Your task to perform on an android device: Search for the best movies of 2019  Image 0: 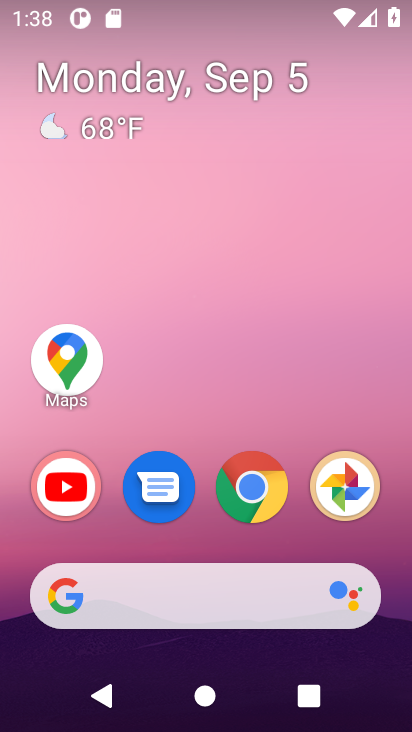
Step 0: click (244, 495)
Your task to perform on an android device: Search for the best movies of 2019  Image 1: 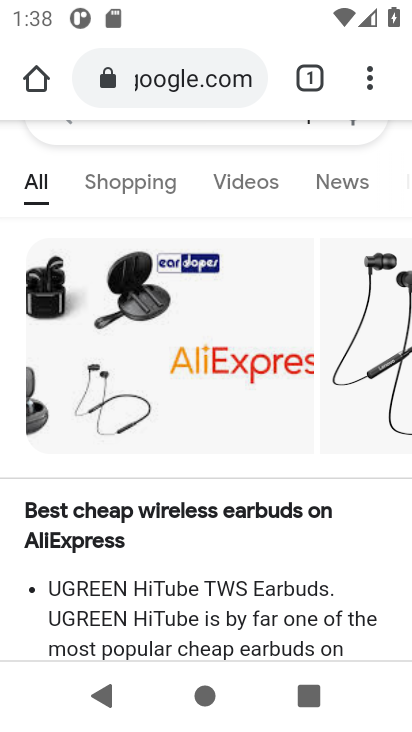
Step 1: click (158, 83)
Your task to perform on an android device: Search for the best movies of 2019  Image 2: 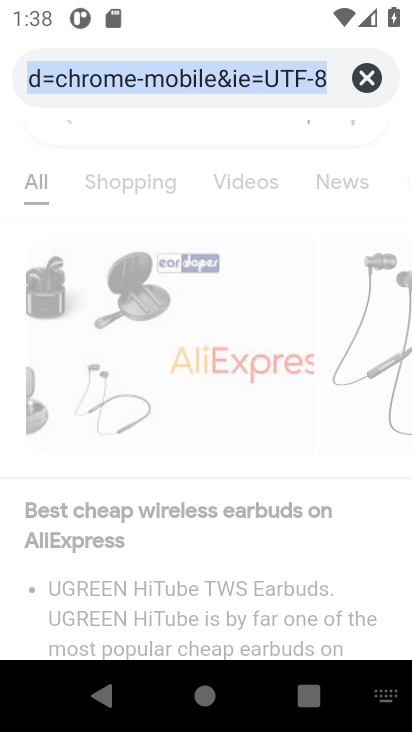
Step 2: click (361, 83)
Your task to perform on an android device: Search for the best movies of 2019  Image 3: 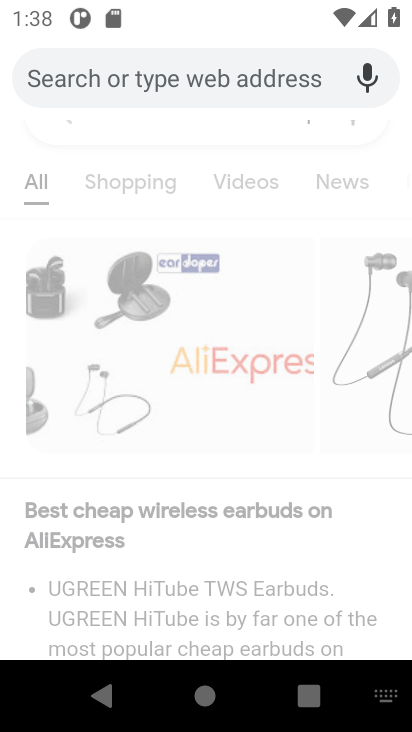
Step 3: type " the best movies of 2019"
Your task to perform on an android device: Search for the best movies of 2019  Image 4: 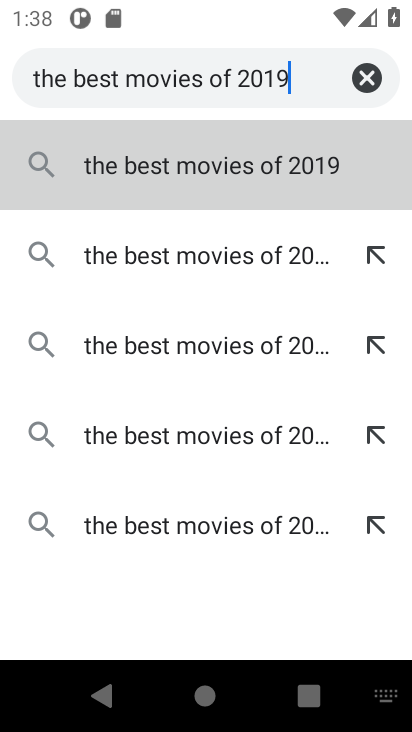
Step 4: click (200, 185)
Your task to perform on an android device: Search for the best movies of 2019  Image 5: 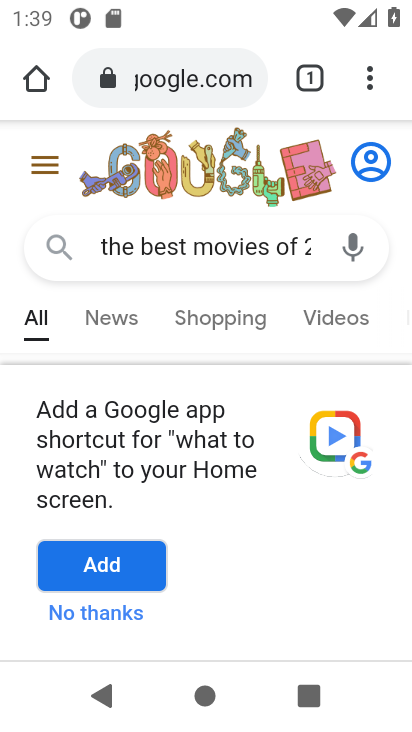
Step 5: task complete